Your task to perform on an android device: When is my next appointment? Image 0: 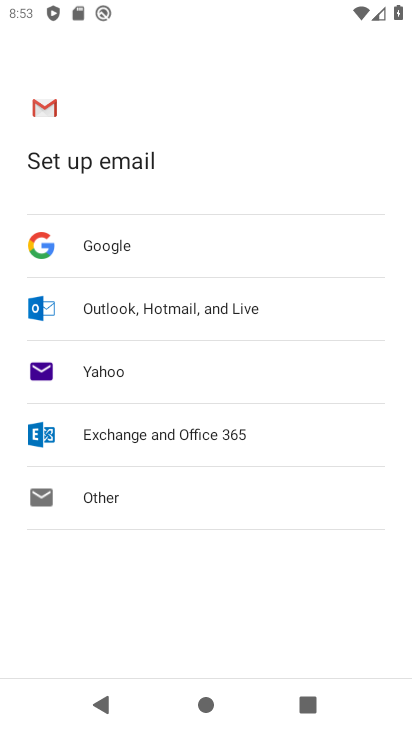
Step 0: press home button
Your task to perform on an android device: When is my next appointment? Image 1: 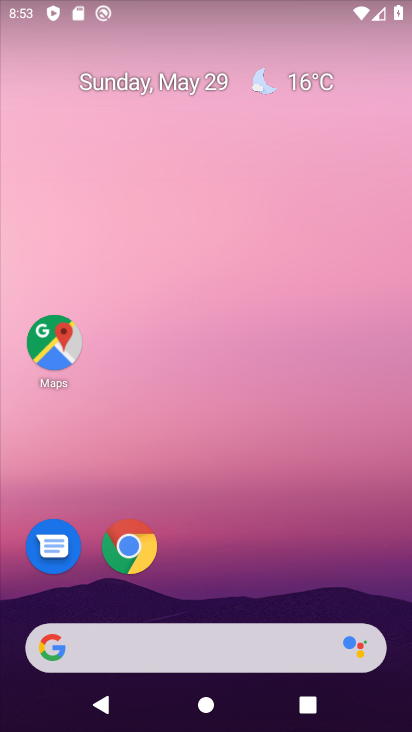
Step 1: drag from (254, 590) to (252, 281)
Your task to perform on an android device: When is my next appointment? Image 2: 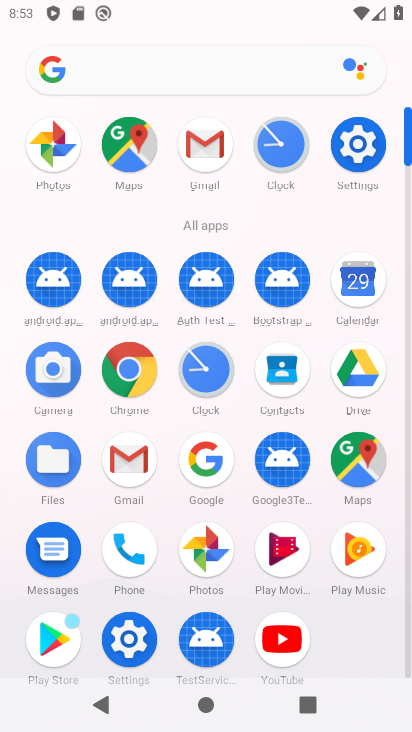
Step 2: click (353, 292)
Your task to perform on an android device: When is my next appointment? Image 3: 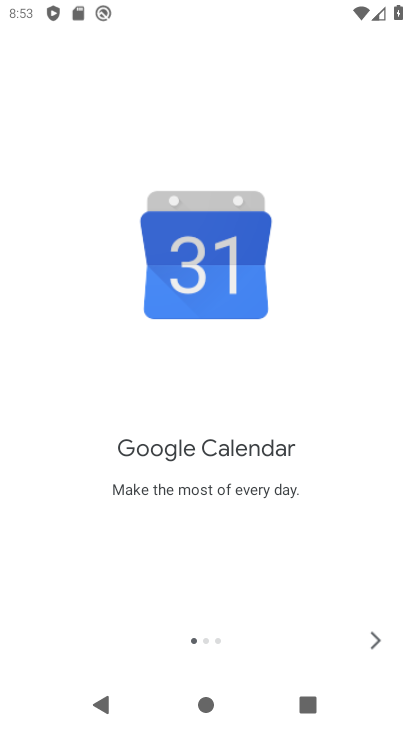
Step 3: click (388, 641)
Your task to perform on an android device: When is my next appointment? Image 4: 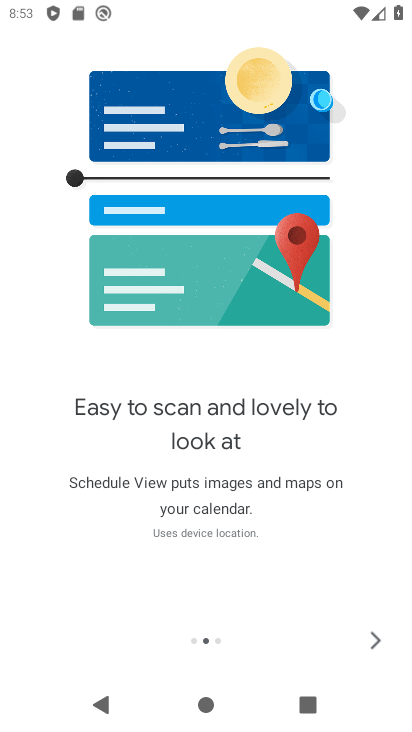
Step 4: click (388, 643)
Your task to perform on an android device: When is my next appointment? Image 5: 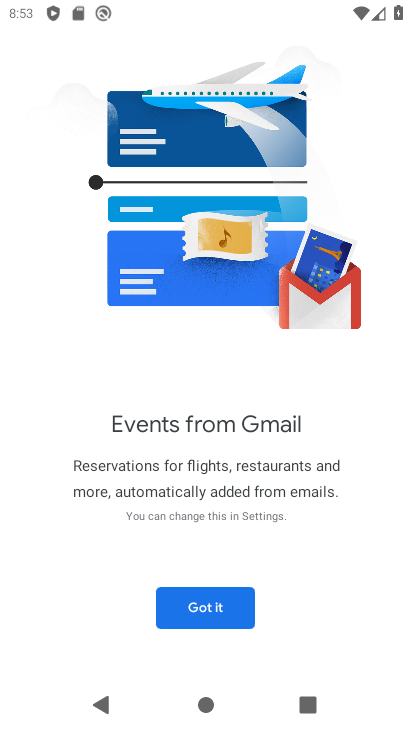
Step 5: click (227, 608)
Your task to perform on an android device: When is my next appointment? Image 6: 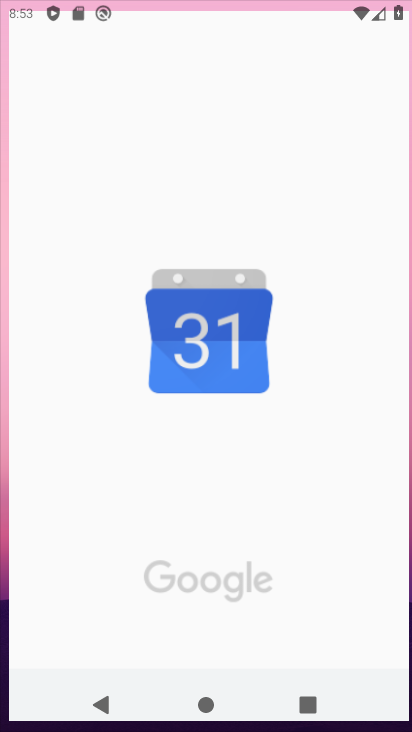
Step 6: drag from (227, 608) to (198, 363)
Your task to perform on an android device: When is my next appointment? Image 7: 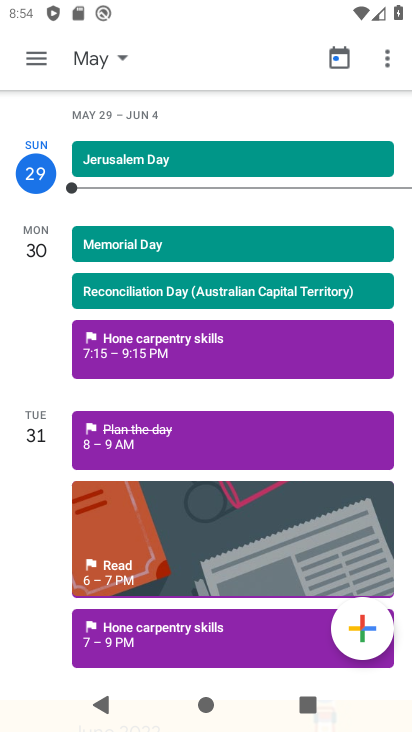
Step 7: drag from (232, 585) to (211, 353)
Your task to perform on an android device: When is my next appointment? Image 8: 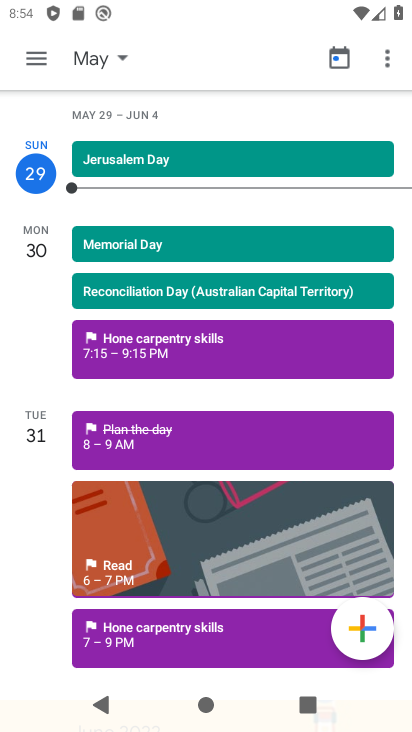
Step 8: drag from (186, 646) to (192, 400)
Your task to perform on an android device: When is my next appointment? Image 9: 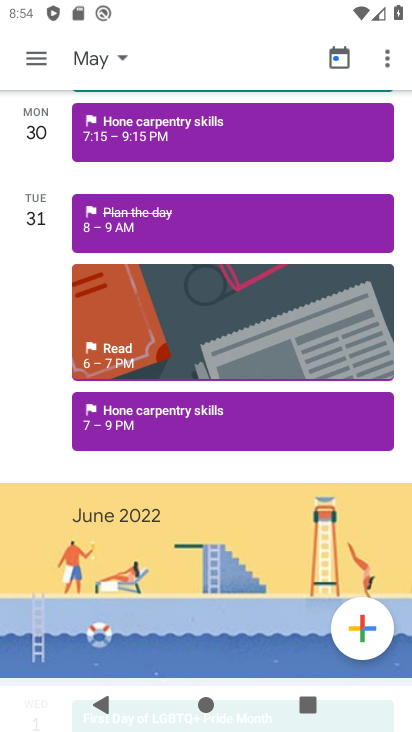
Step 9: drag from (183, 615) to (228, 115)
Your task to perform on an android device: When is my next appointment? Image 10: 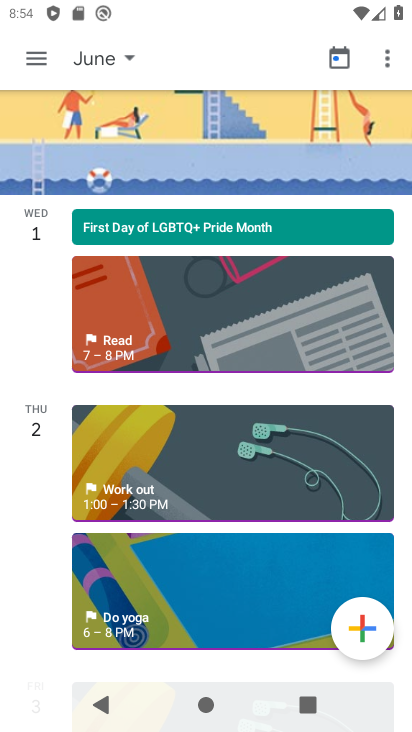
Step 10: drag from (195, 580) to (213, 138)
Your task to perform on an android device: When is my next appointment? Image 11: 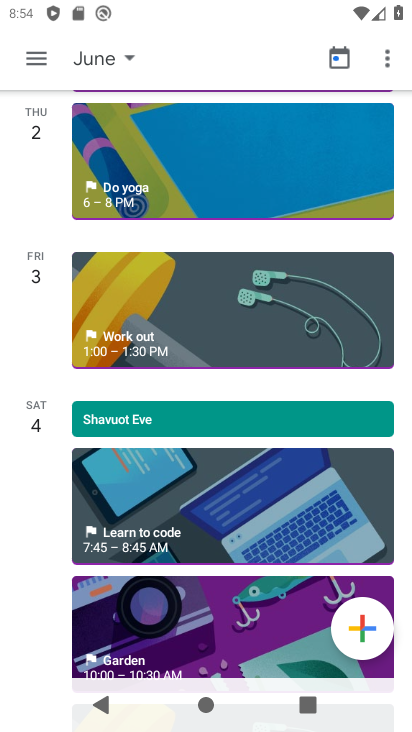
Step 11: drag from (207, 655) to (215, 279)
Your task to perform on an android device: When is my next appointment? Image 12: 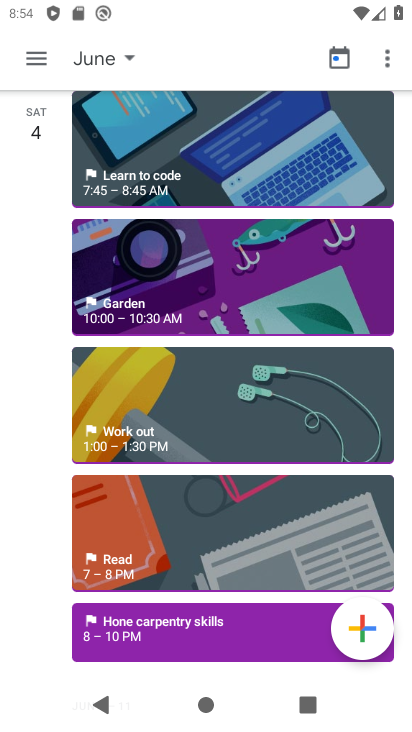
Step 12: drag from (201, 658) to (245, 209)
Your task to perform on an android device: When is my next appointment? Image 13: 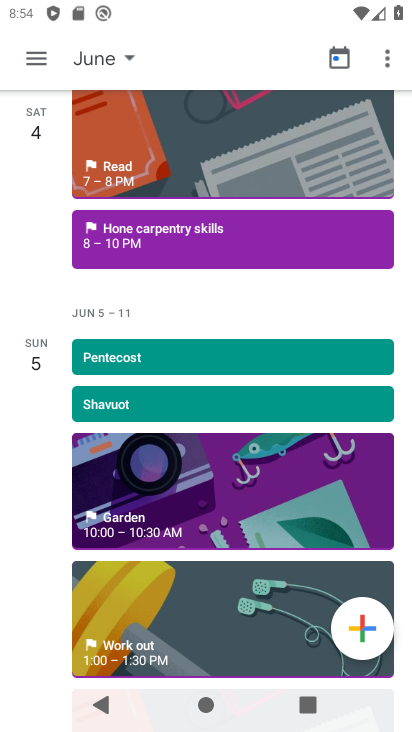
Step 13: drag from (191, 601) to (231, 250)
Your task to perform on an android device: When is my next appointment? Image 14: 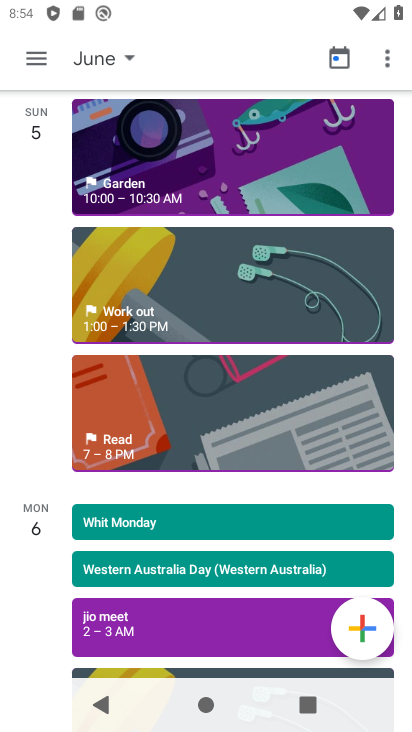
Step 14: click (206, 623)
Your task to perform on an android device: When is my next appointment? Image 15: 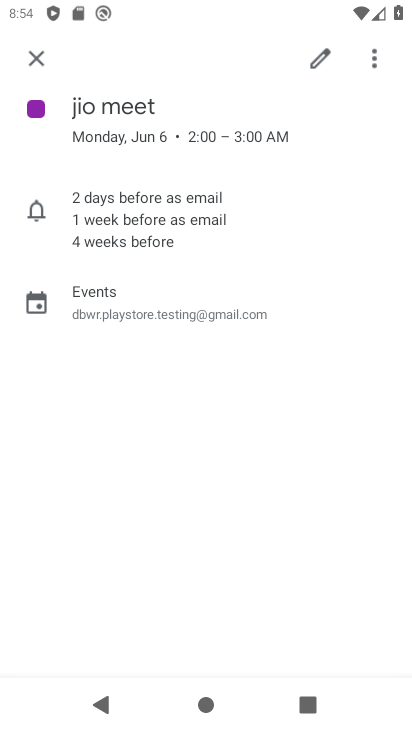
Step 15: task complete